Your task to perform on an android device: Check the news Image 0: 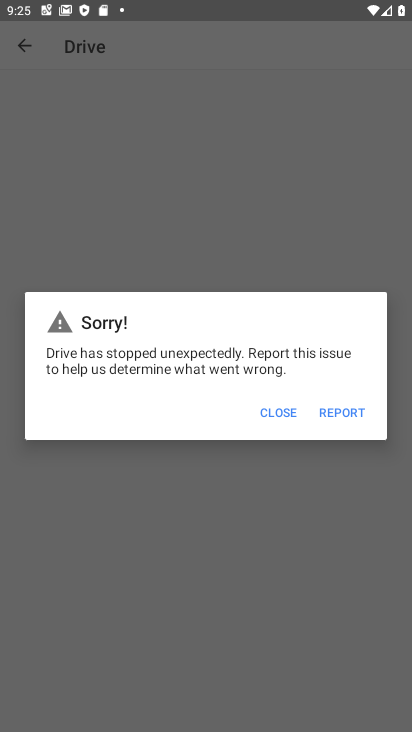
Step 0: press home button
Your task to perform on an android device: Check the news Image 1: 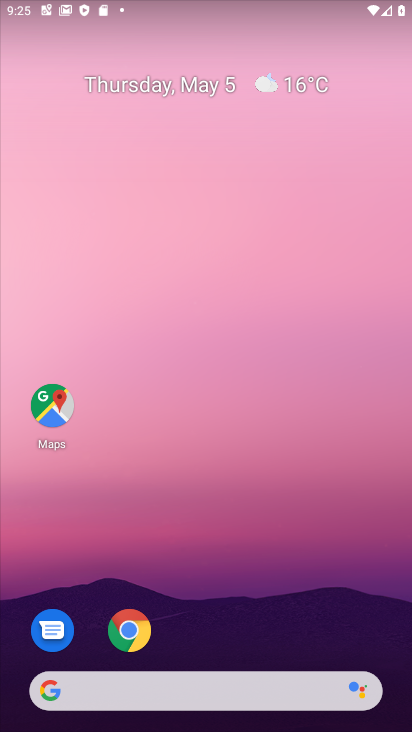
Step 1: task complete